Your task to perform on an android device: open app "Cash App" Image 0: 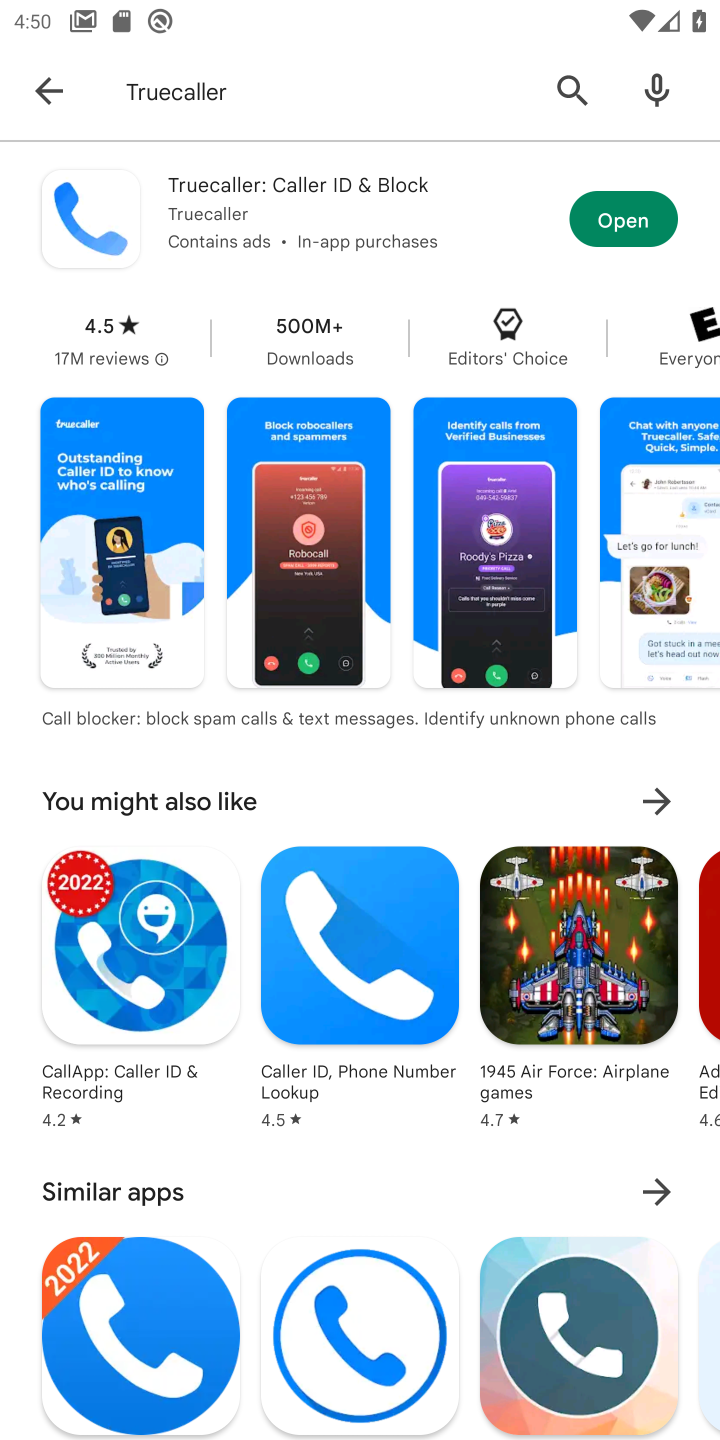
Step 0: press back button
Your task to perform on an android device: open app "Cash App" Image 1: 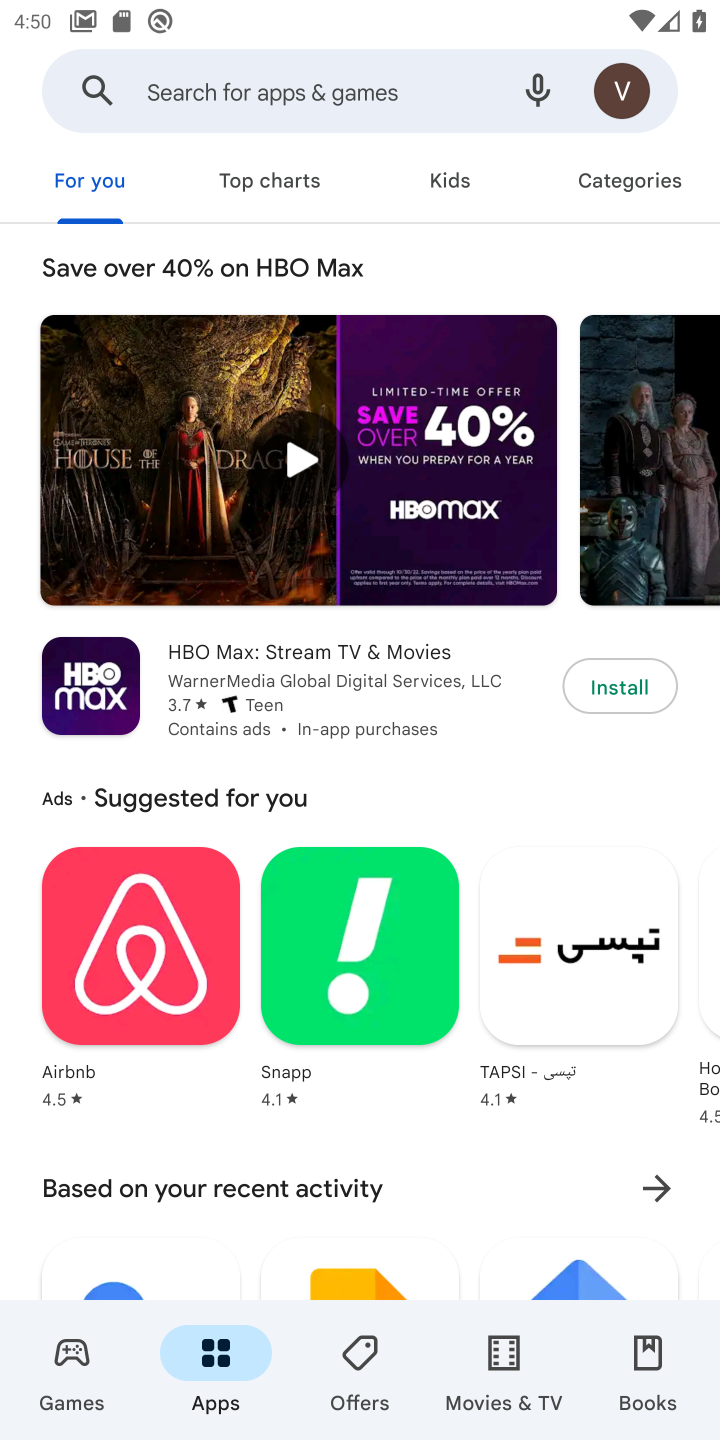
Step 1: click (335, 64)
Your task to perform on an android device: open app "Cash App" Image 2: 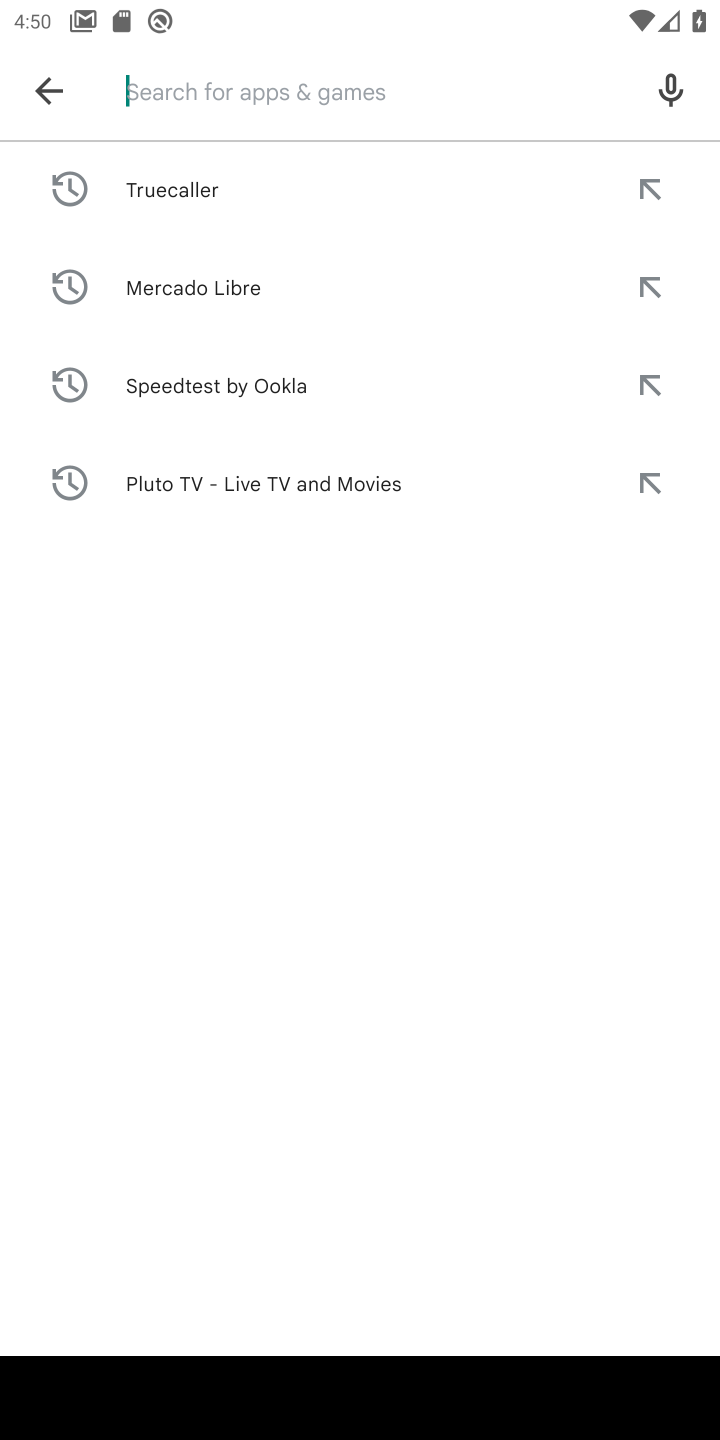
Step 2: type "Cash App"
Your task to perform on an android device: open app "Cash App" Image 3: 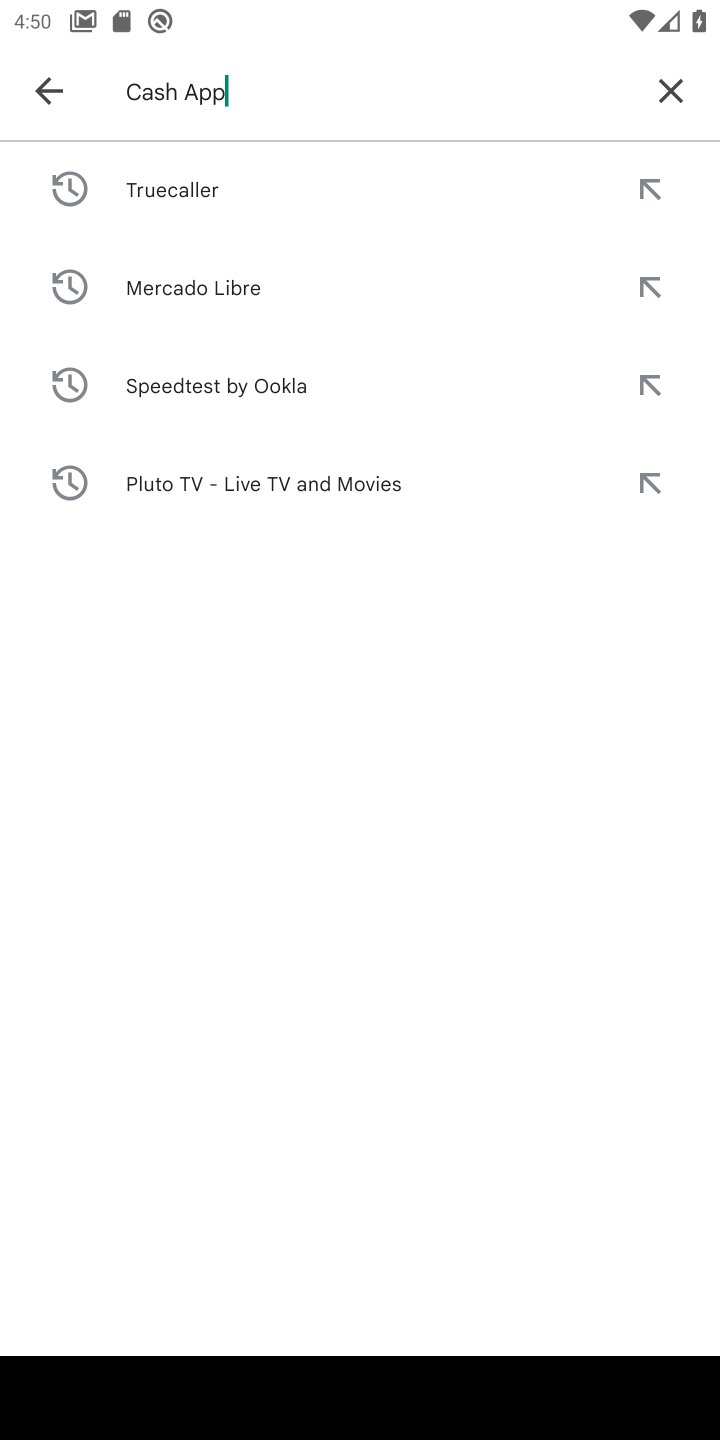
Step 3: press enter
Your task to perform on an android device: open app "Cash App" Image 4: 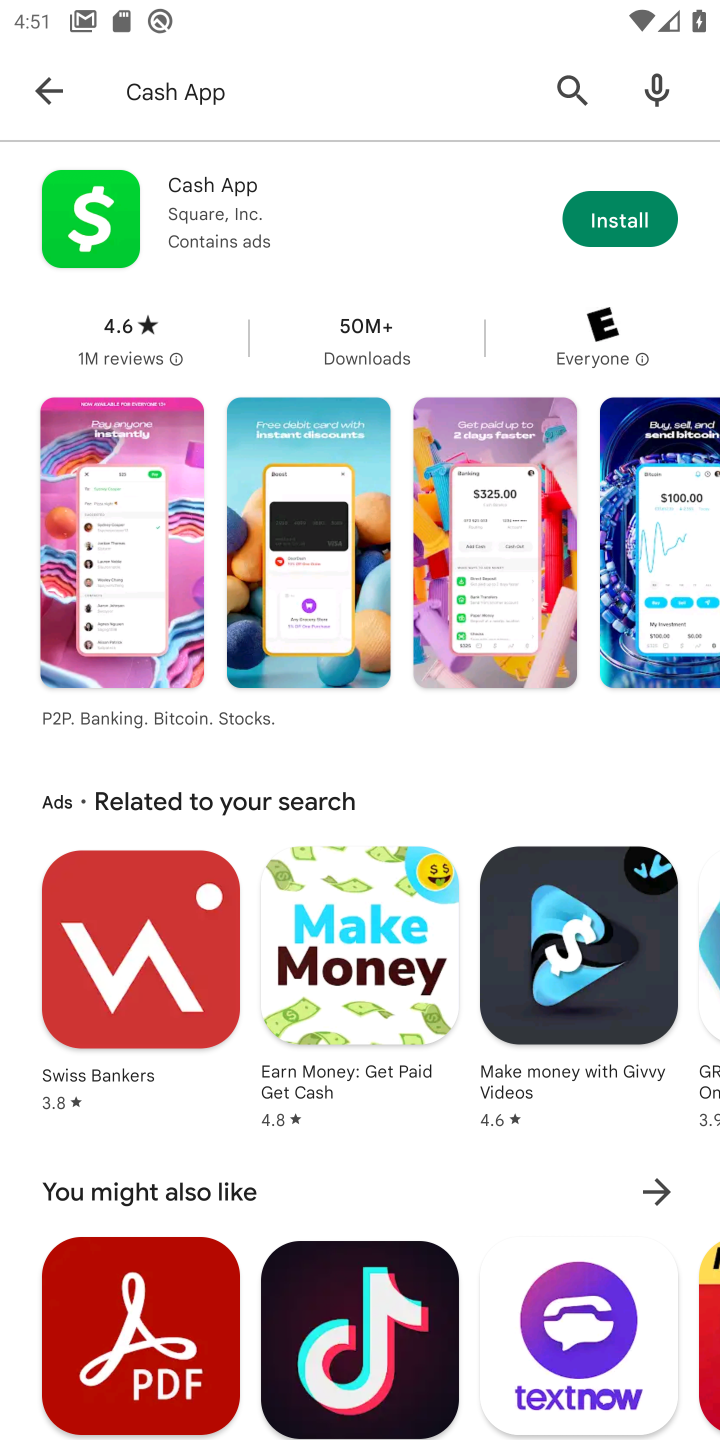
Step 4: task complete